Your task to perform on an android device: open sync settings in chrome Image 0: 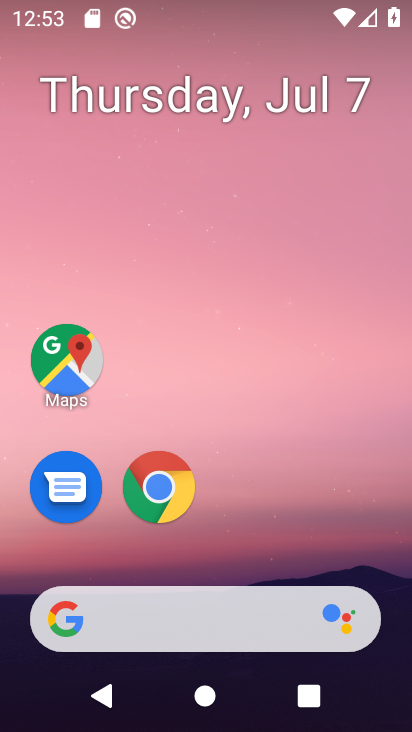
Step 0: drag from (359, 550) to (349, 133)
Your task to perform on an android device: open sync settings in chrome Image 1: 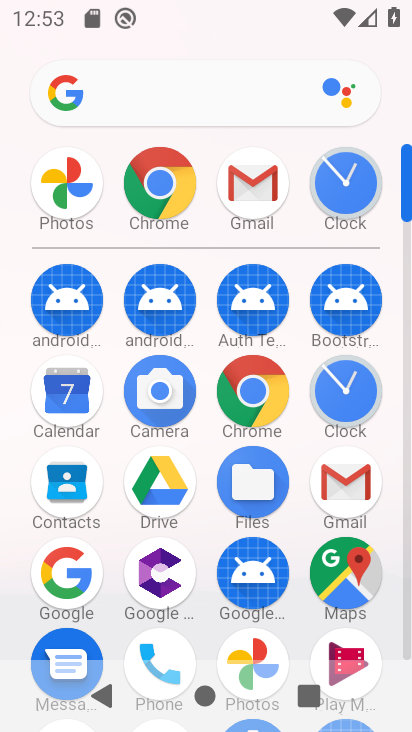
Step 1: click (256, 409)
Your task to perform on an android device: open sync settings in chrome Image 2: 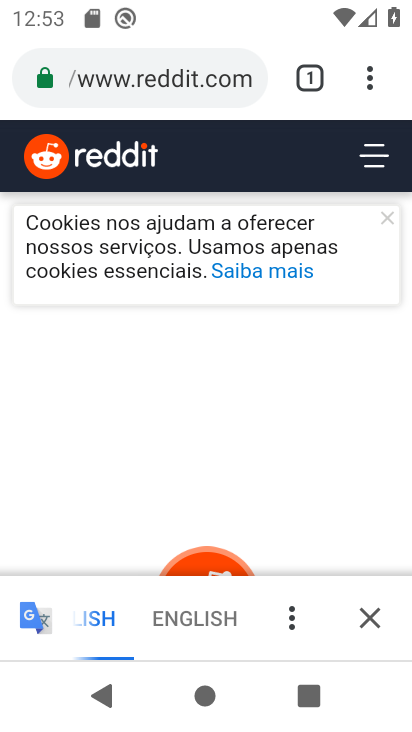
Step 2: click (369, 92)
Your task to perform on an android device: open sync settings in chrome Image 3: 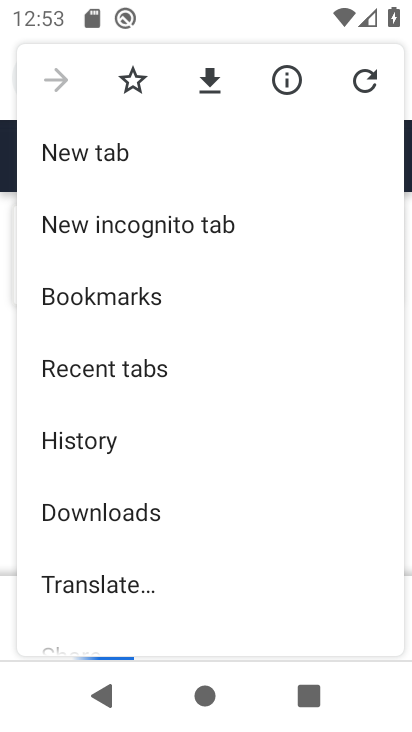
Step 3: drag from (319, 531) to (317, 310)
Your task to perform on an android device: open sync settings in chrome Image 4: 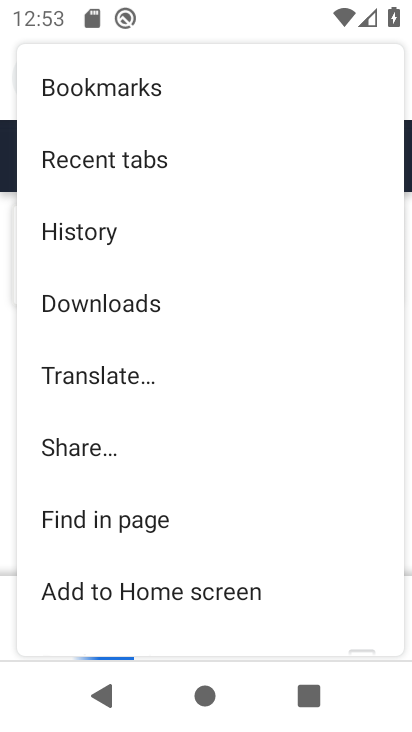
Step 4: drag from (303, 599) to (324, 420)
Your task to perform on an android device: open sync settings in chrome Image 5: 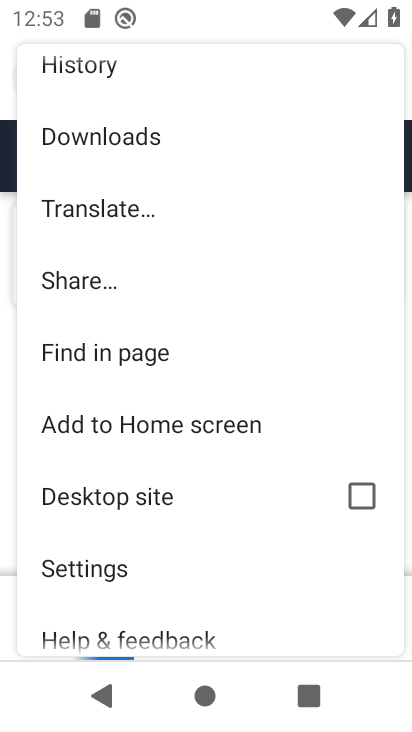
Step 5: drag from (279, 563) to (295, 325)
Your task to perform on an android device: open sync settings in chrome Image 6: 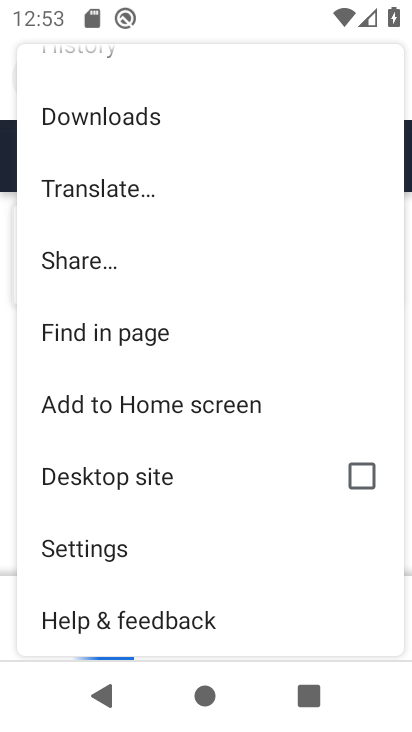
Step 6: drag from (303, 208) to (301, 281)
Your task to perform on an android device: open sync settings in chrome Image 7: 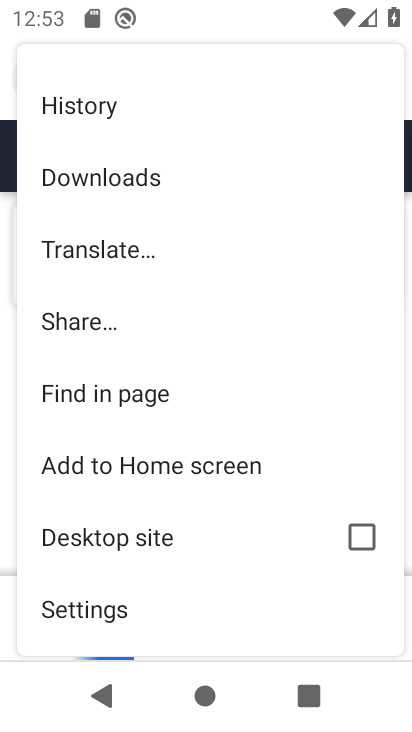
Step 7: click (145, 625)
Your task to perform on an android device: open sync settings in chrome Image 8: 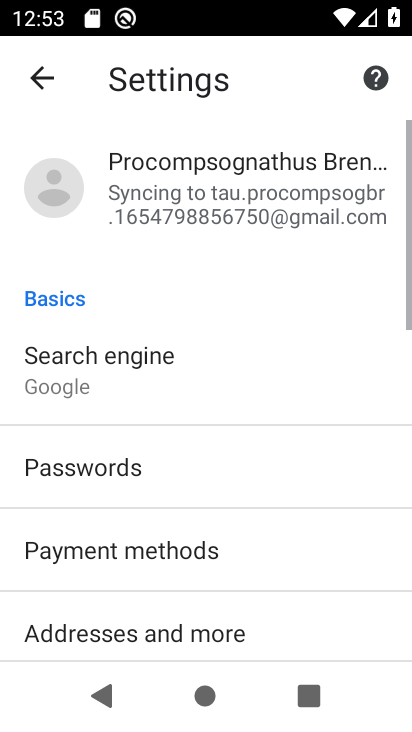
Step 8: drag from (282, 515) to (291, 352)
Your task to perform on an android device: open sync settings in chrome Image 9: 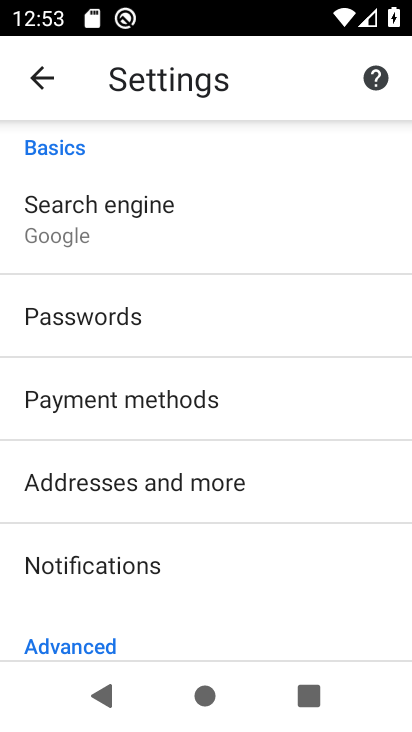
Step 9: drag from (316, 546) to (330, 351)
Your task to perform on an android device: open sync settings in chrome Image 10: 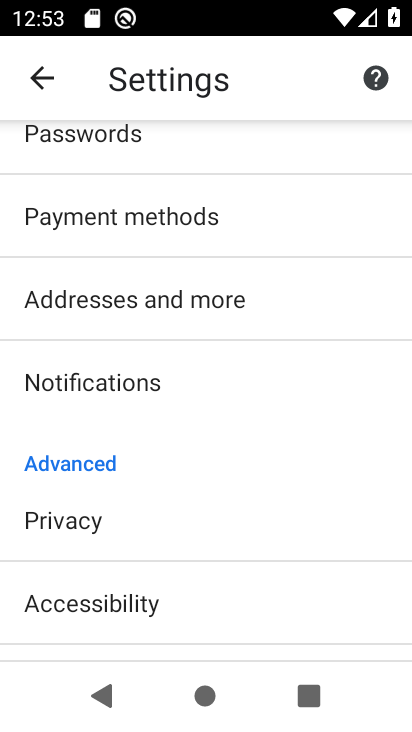
Step 10: drag from (308, 586) to (313, 393)
Your task to perform on an android device: open sync settings in chrome Image 11: 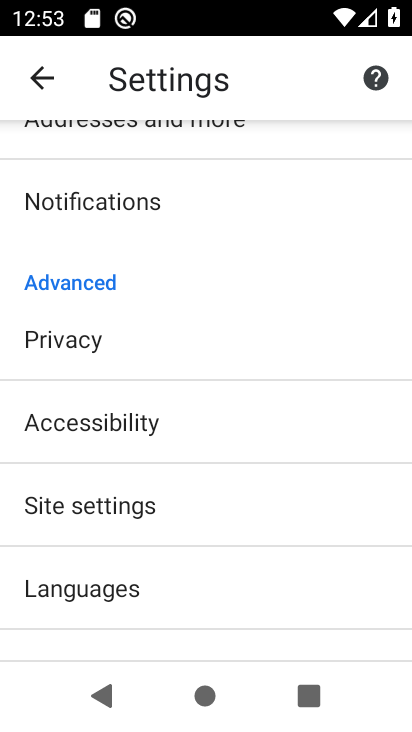
Step 11: drag from (281, 520) to (284, 375)
Your task to perform on an android device: open sync settings in chrome Image 12: 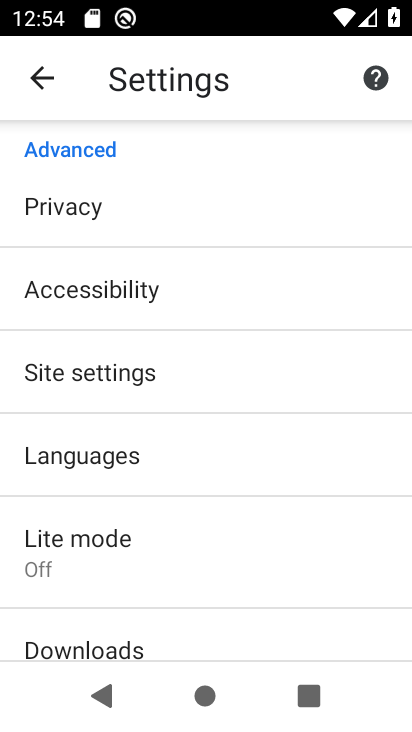
Step 12: drag from (306, 541) to (308, 379)
Your task to perform on an android device: open sync settings in chrome Image 13: 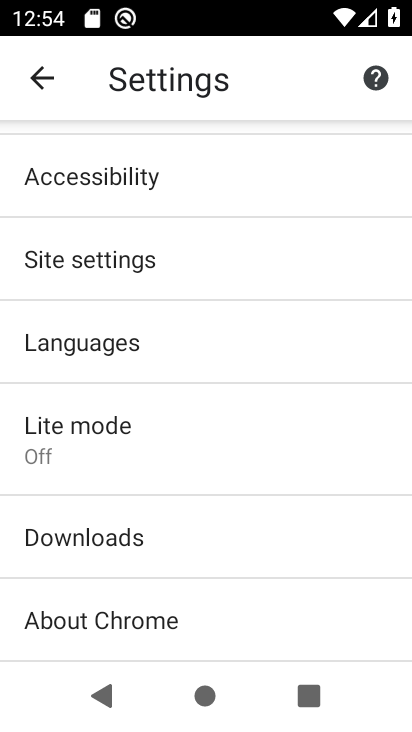
Step 13: drag from (272, 524) to (271, 373)
Your task to perform on an android device: open sync settings in chrome Image 14: 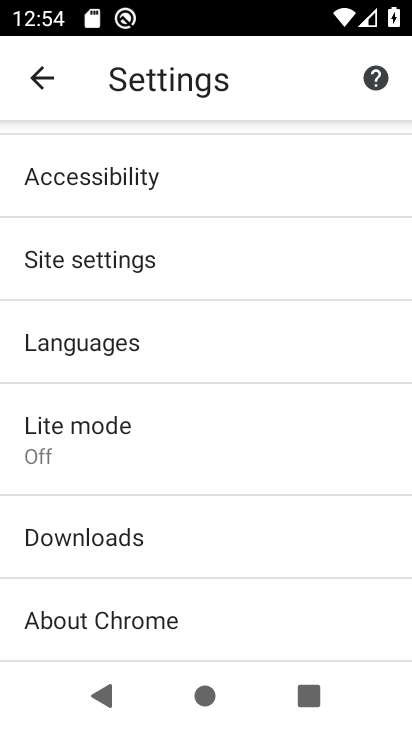
Step 14: click (196, 241)
Your task to perform on an android device: open sync settings in chrome Image 15: 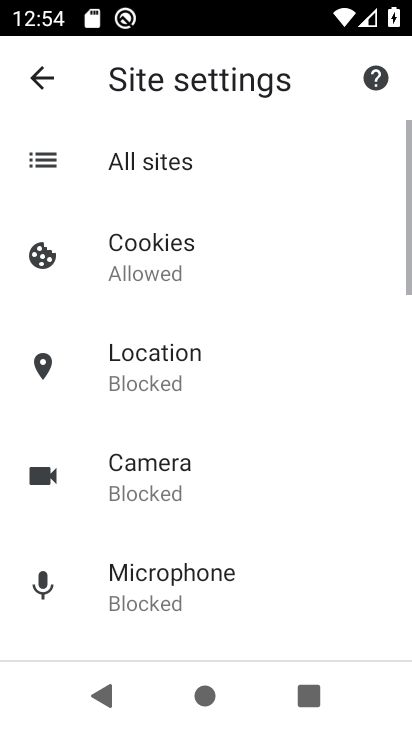
Step 15: drag from (279, 518) to (299, 284)
Your task to perform on an android device: open sync settings in chrome Image 16: 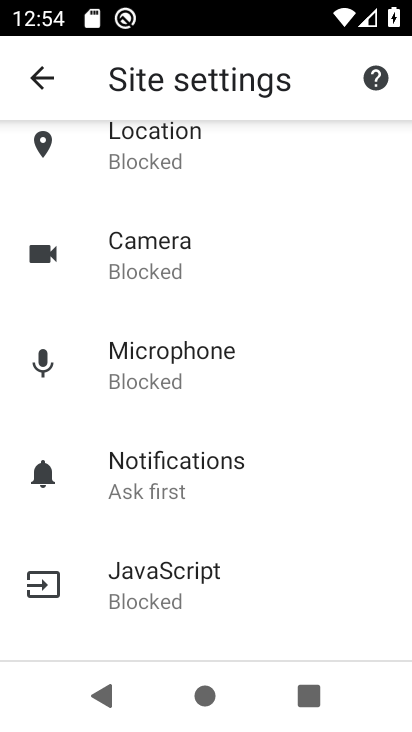
Step 16: drag from (301, 548) to (321, 329)
Your task to perform on an android device: open sync settings in chrome Image 17: 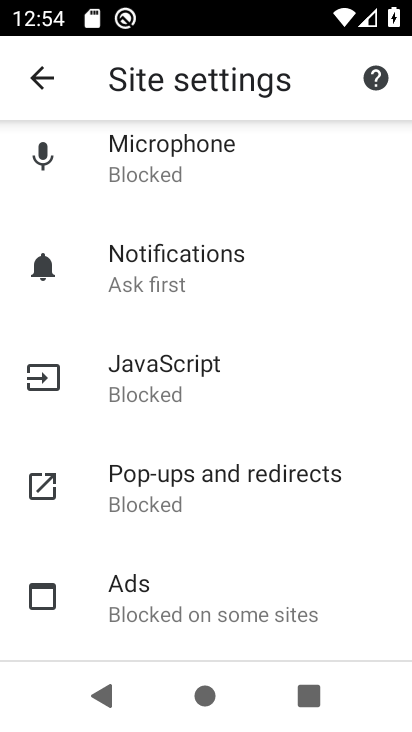
Step 17: drag from (327, 546) to (339, 402)
Your task to perform on an android device: open sync settings in chrome Image 18: 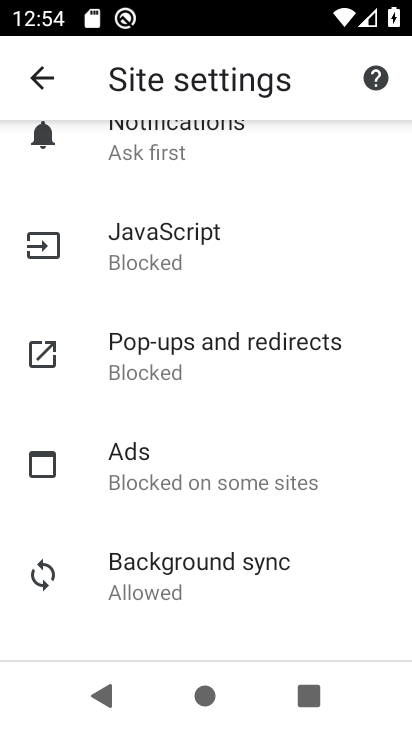
Step 18: drag from (335, 541) to (335, 410)
Your task to perform on an android device: open sync settings in chrome Image 19: 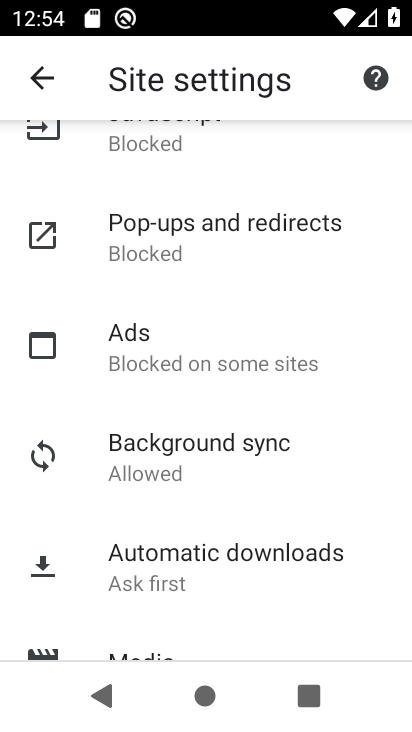
Step 19: drag from (314, 618) to (304, 447)
Your task to perform on an android device: open sync settings in chrome Image 20: 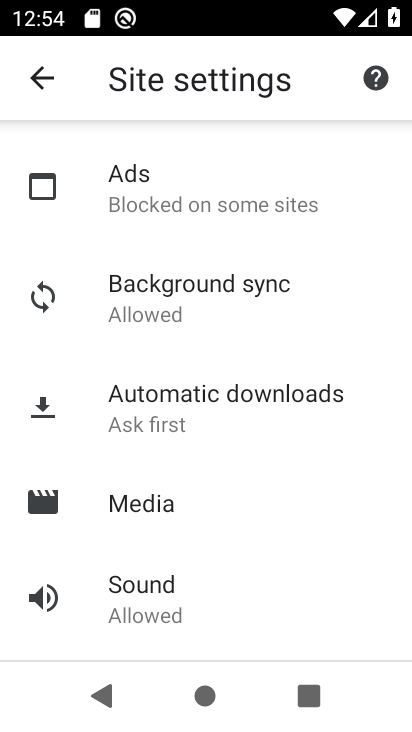
Step 20: drag from (341, 288) to (359, 446)
Your task to perform on an android device: open sync settings in chrome Image 21: 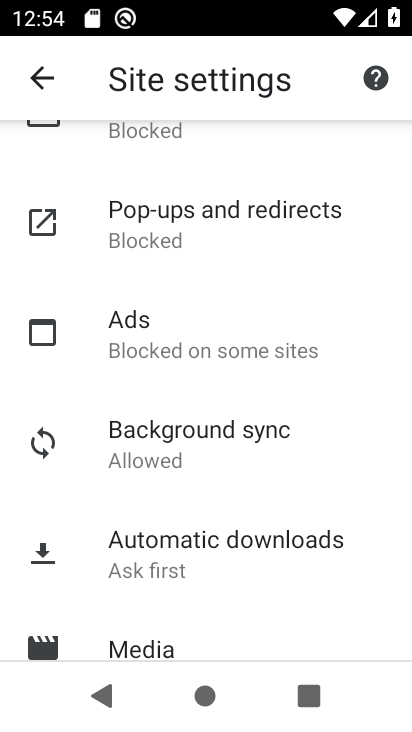
Step 21: click (228, 454)
Your task to perform on an android device: open sync settings in chrome Image 22: 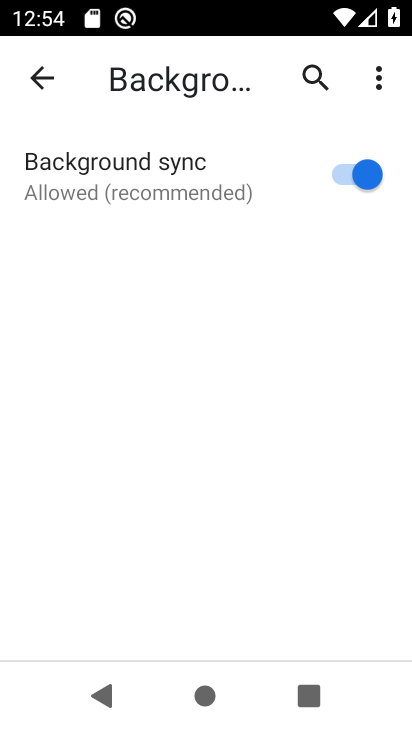
Step 22: task complete